Your task to perform on an android device: toggle pop-ups in chrome Image 0: 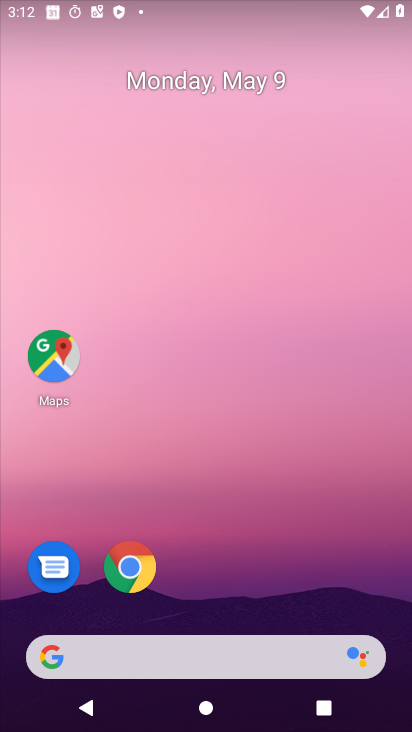
Step 0: click (131, 568)
Your task to perform on an android device: toggle pop-ups in chrome Image 1: 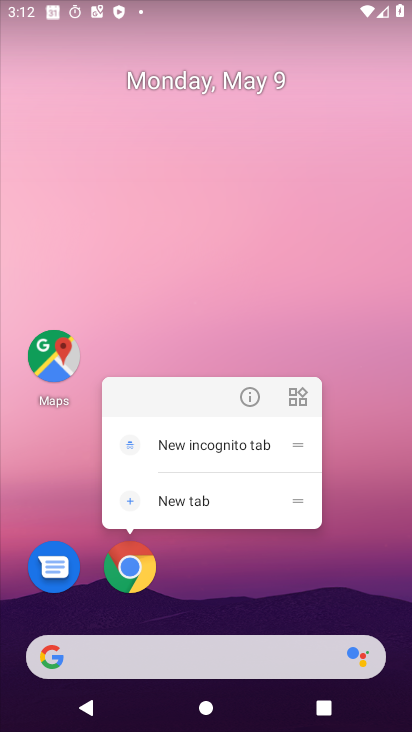
Step 1: click (134, 564)
Your task to perform on an android device: toggle pop-ups in chrome Image 2: 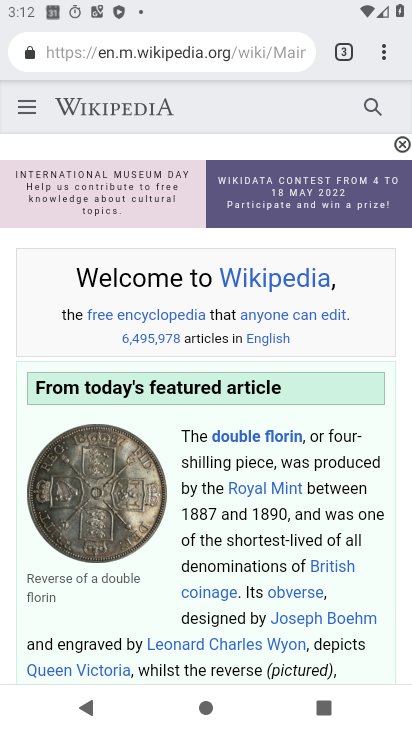
Step 2: click (387, 45)
Your task to perform on an android device: toggle pop-ups in chrome Image 3: 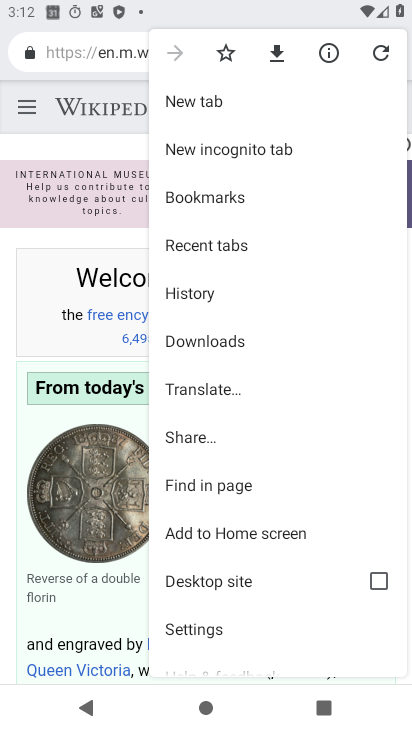
Step 3: click (223, 624)
Your task to perform on an android device: toggle pop-ups in chrome Image 4: 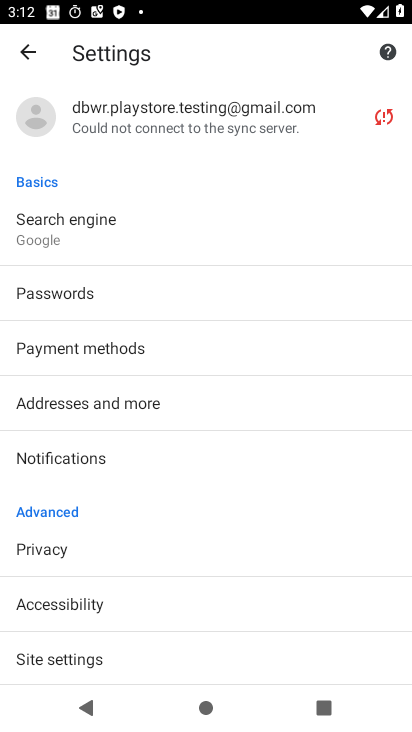
Step 4: click (89, 656)
Your task to perform on an android device: toggle pop-ups in chrome Image 5: 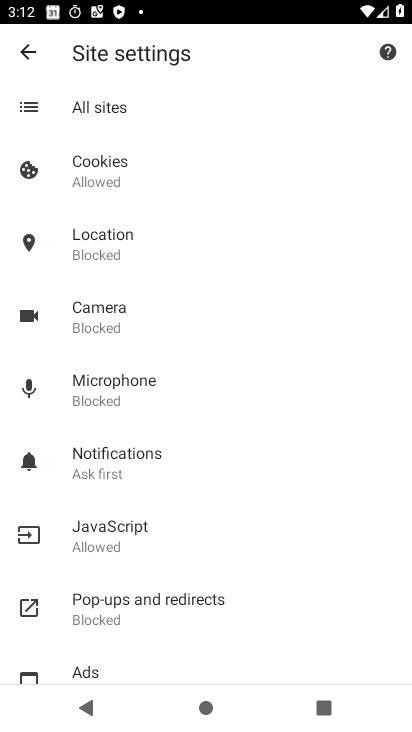
Step 5: click (126, 613)
Your task to perform on an android device: toggle pop-ups in chrome Image 6: 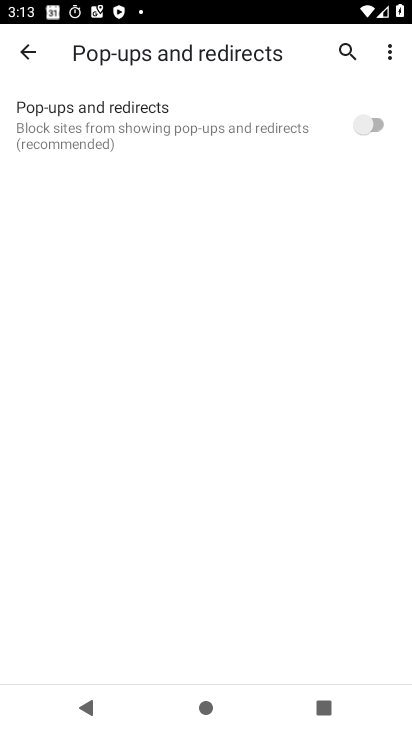
Step 6: click (380, 116)
Your task to perform on an android device: toggle pop-ups in chrome Image 7: 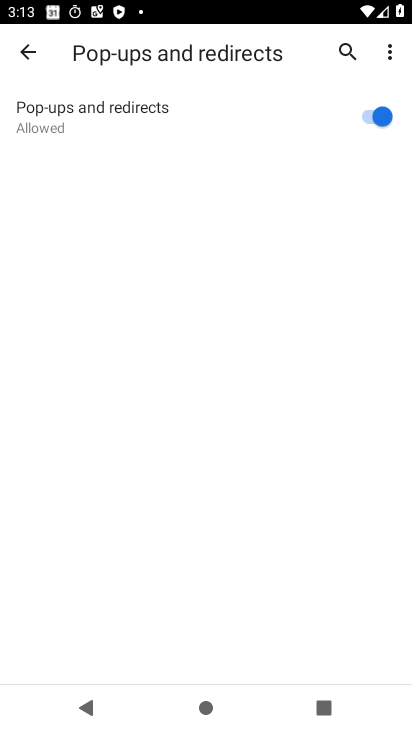
Step 7: task complete